Your task to perform on an android device: Open Chrome and go to the settings page Image 0: 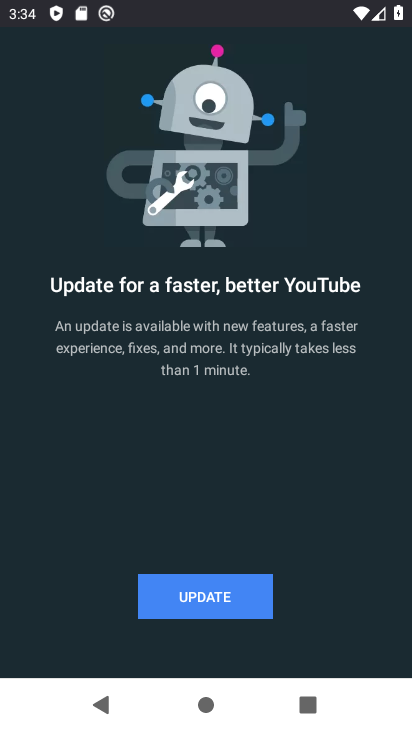
Step 0: press home button
Your task to perform on an android device: Open Chrome and go to the settings page Image 1: 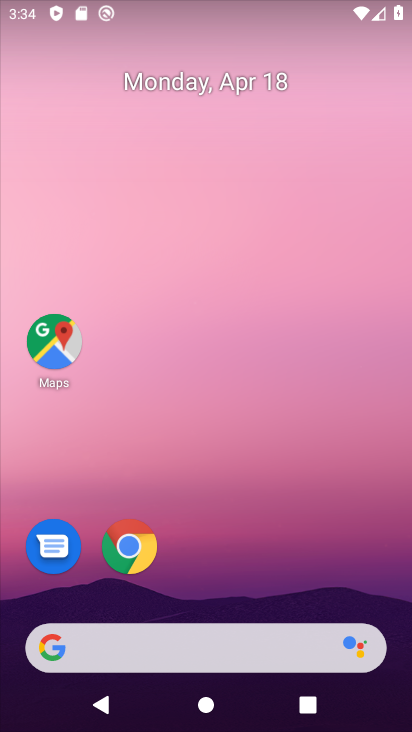
Step 1: click (122, 551)
Your task to perform on an android device: Open Chrome and go to the settings page Image 2: 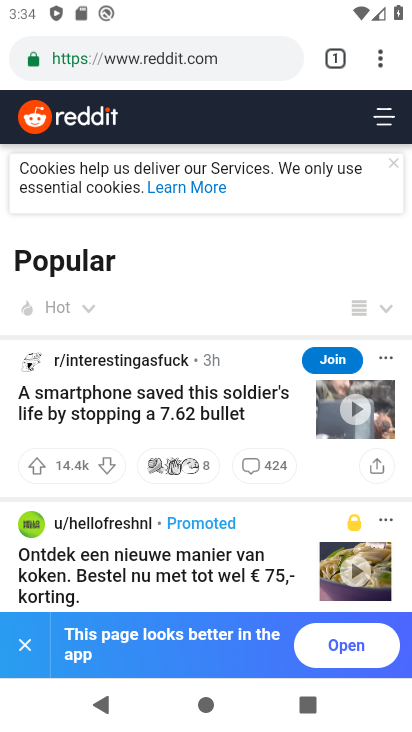
Step 2: task complete